Your task to perform on an android device: Toggle the flashlight Image 0: 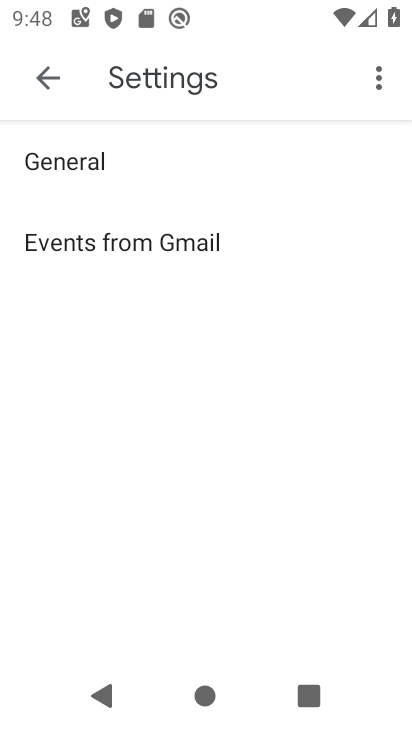
Step 0: press home button
Your task to perform on an android device: Toggle the flashlight Image 1: 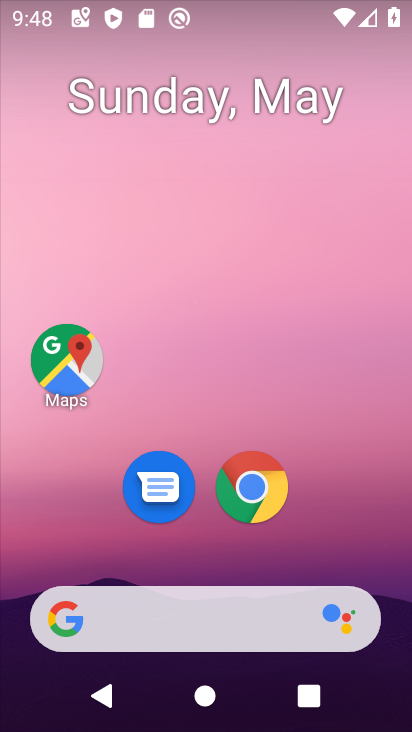
Step 1: drag from (267, 30) to (248, 430)
Your task to perform on an android device: Toggle the flashlight Image 2: 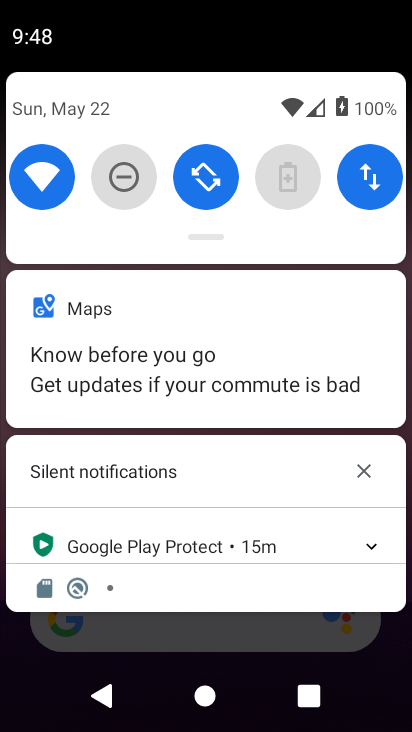
Step 2: drag from (241, 99) to (228, 422)
Your task to perform on an android device: Toggle the flashlight Image 3: 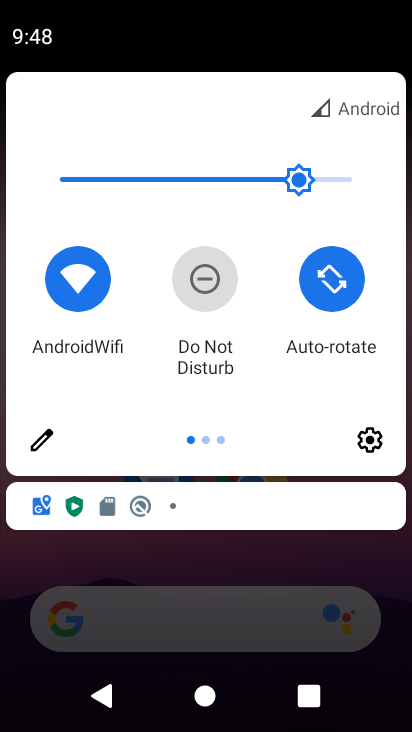
Step 3: click (62, 451)
Your task to perform on an android device: Toggle the flashlight Image 4: 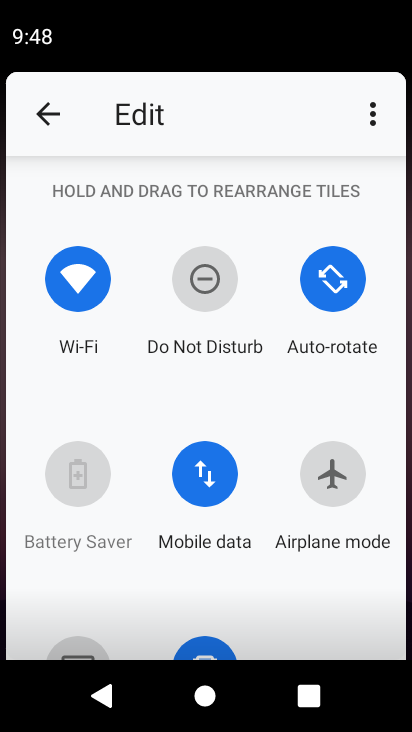
Step 4: task complete